Your task to perform on an android device: turn off location Image 0: 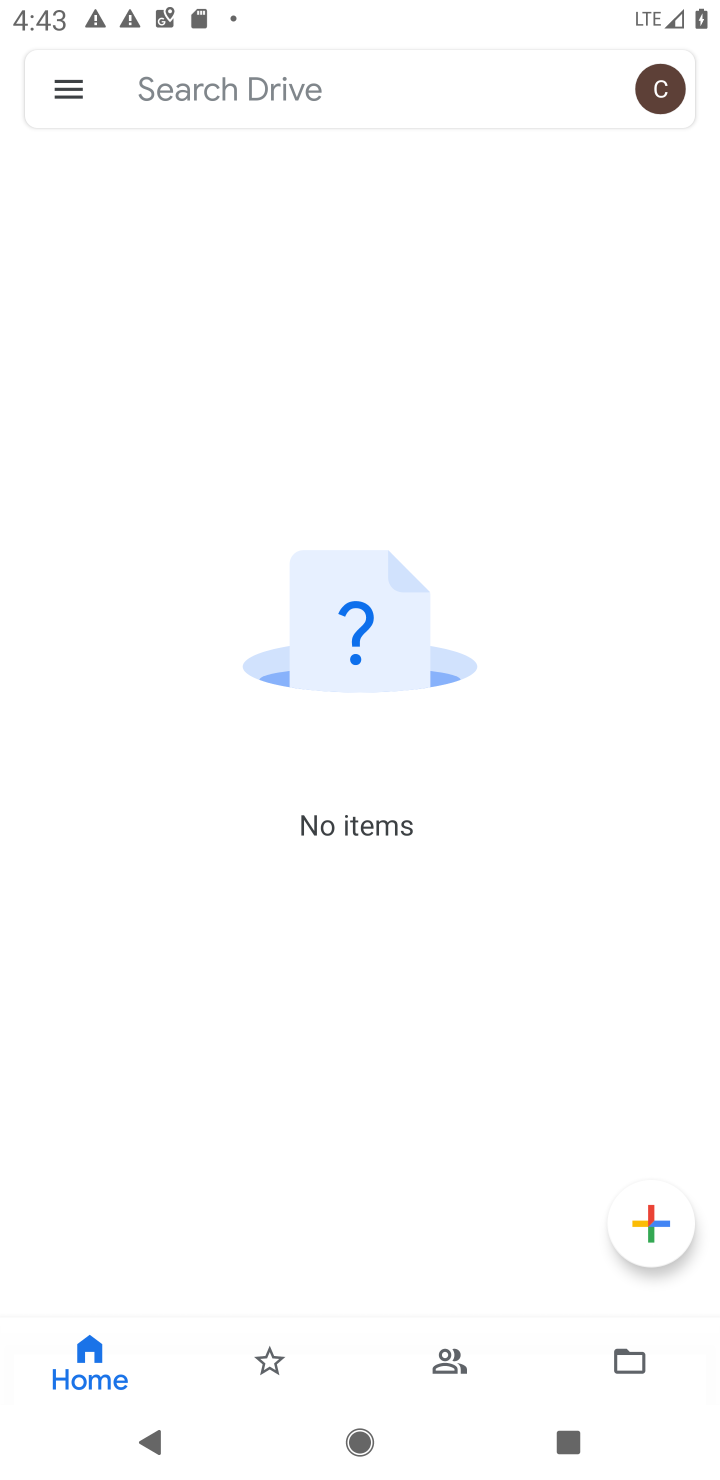
Step 0: press home button
Your task to perform on an android device: turn off location Image 1: 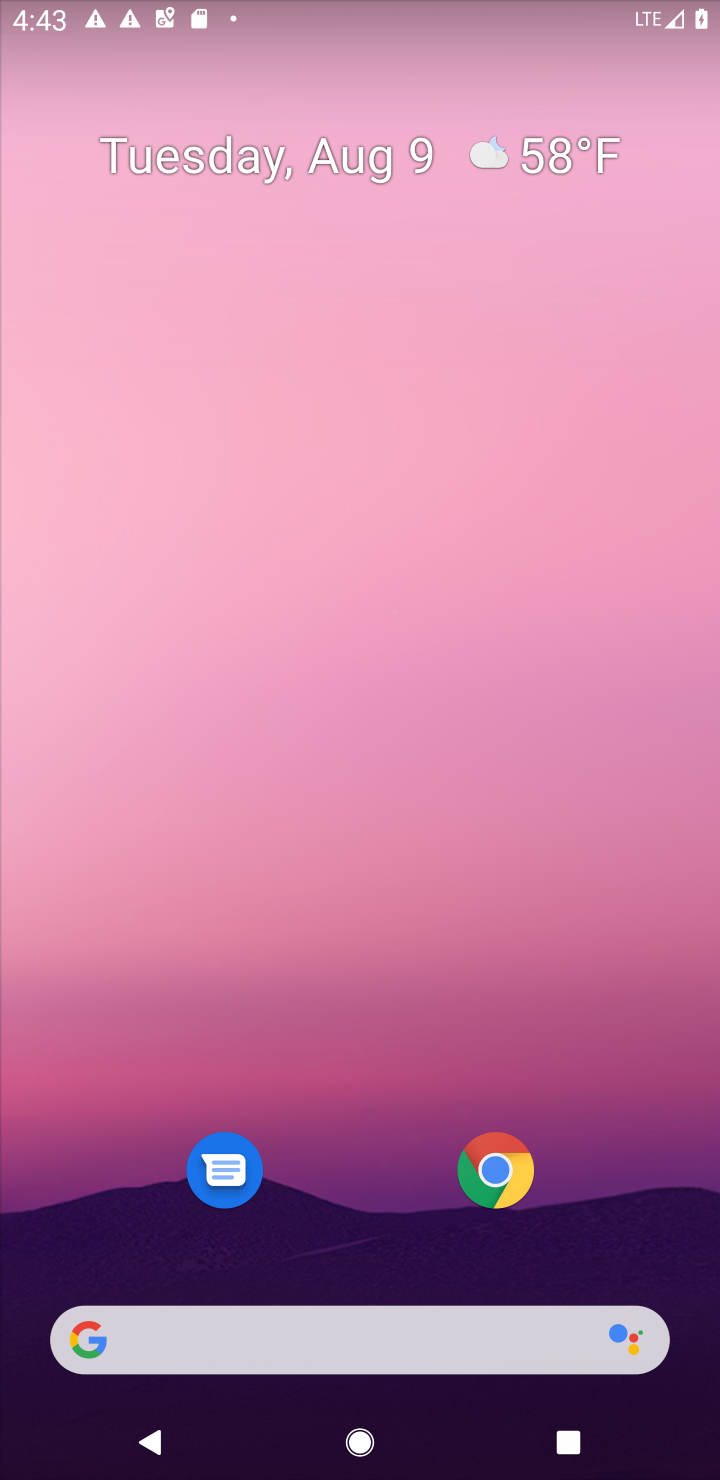
Step 1: drag from (416, 777) to (431, 47)
Your task to perform on an android device: turn off location Image 2: 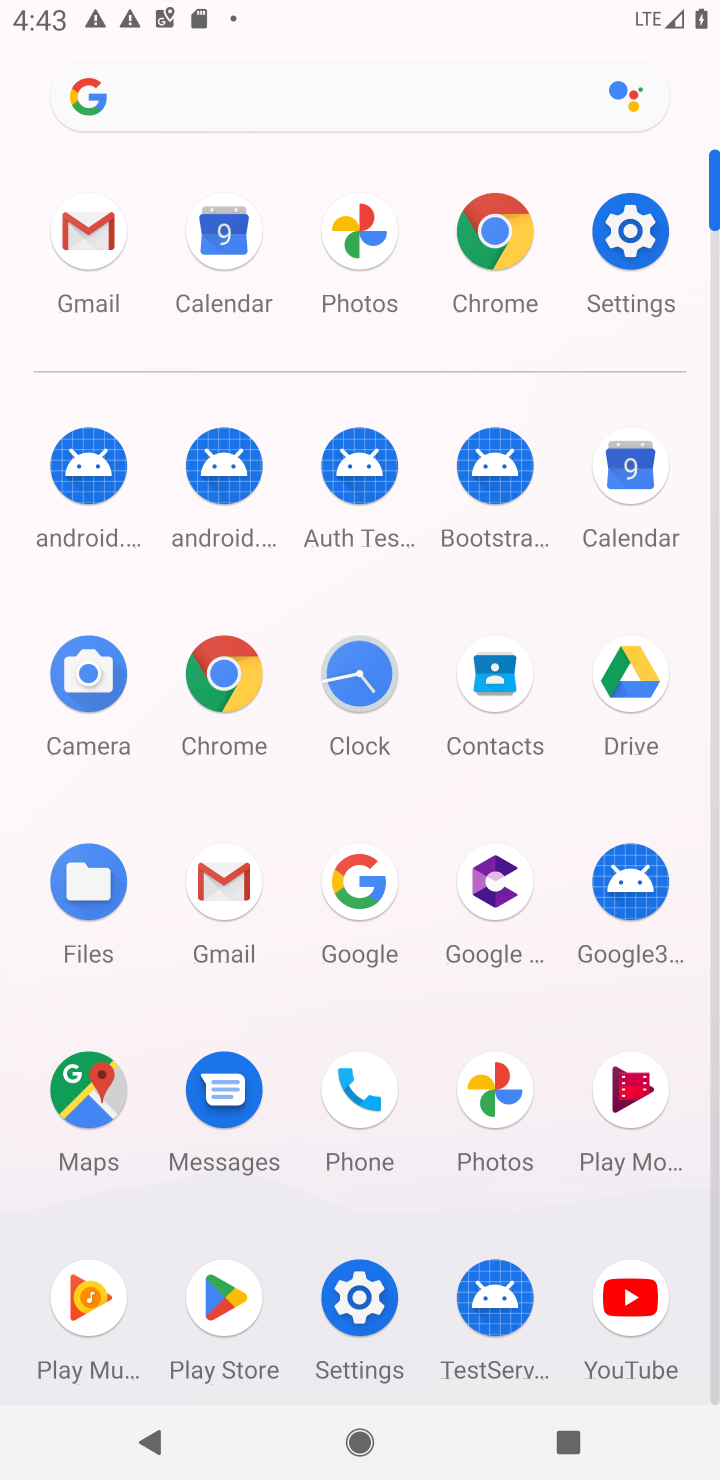
Step 2: click (610, 227)
Your task to perform on an android device: turn off location Image 3: 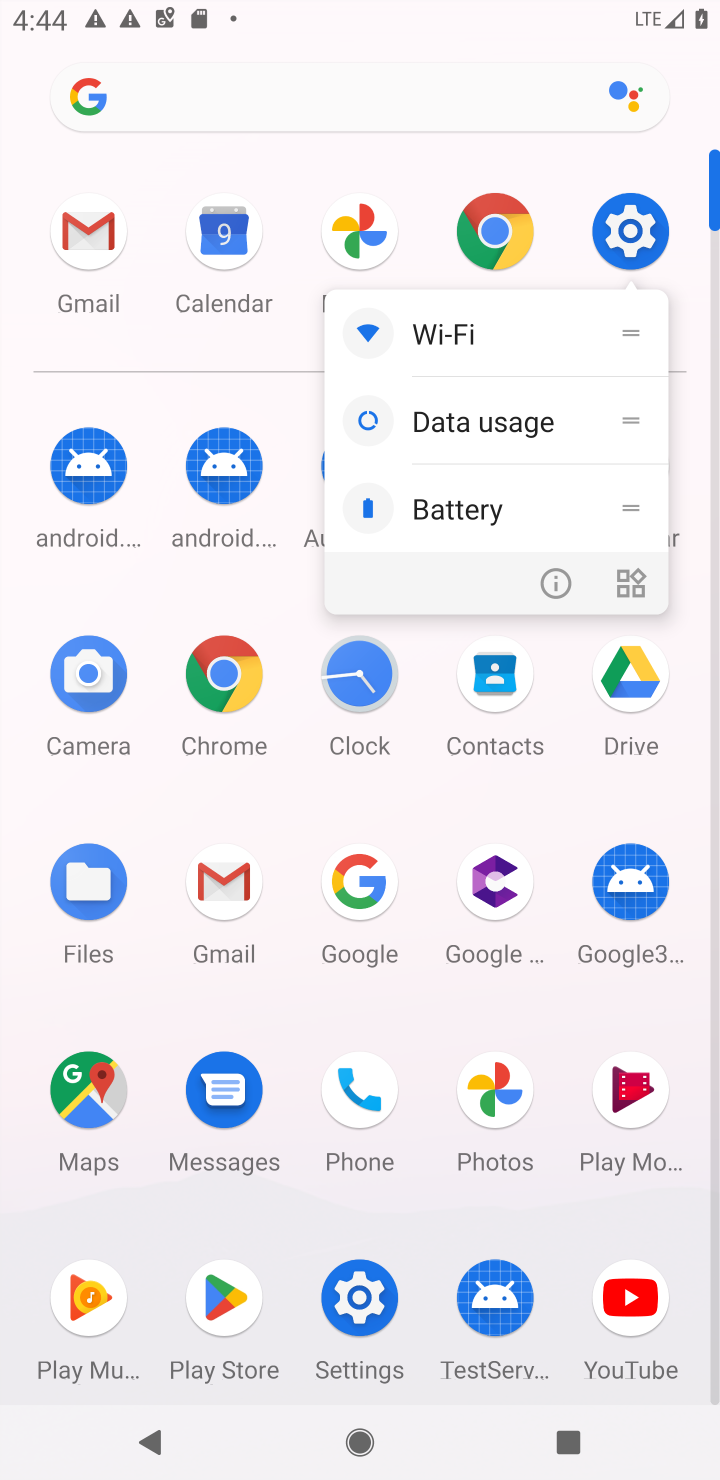
Step 3: click (638, 225)
Your task to perform on an android device: turn off location Image 4: 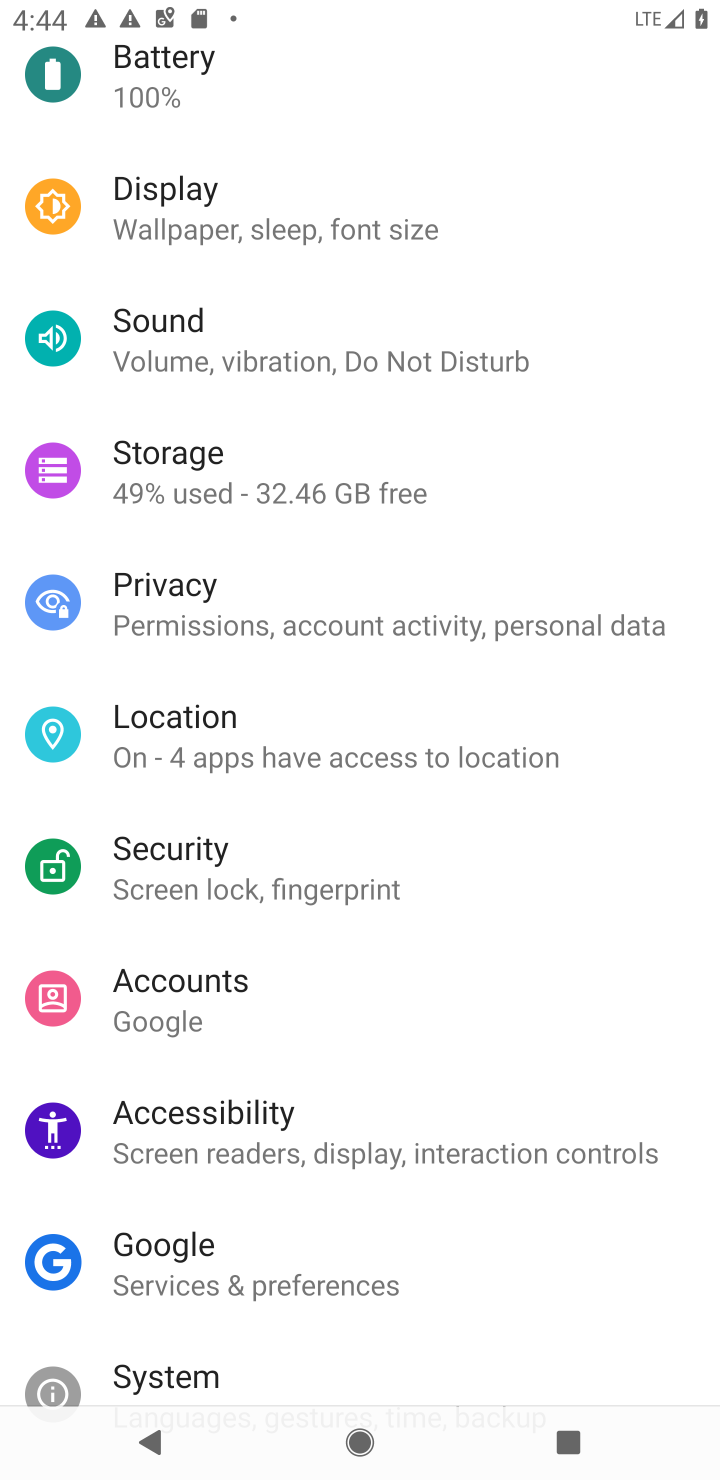
Step 4: click (166, 713)
Your task to perform on an android device: turn off location Image 5: 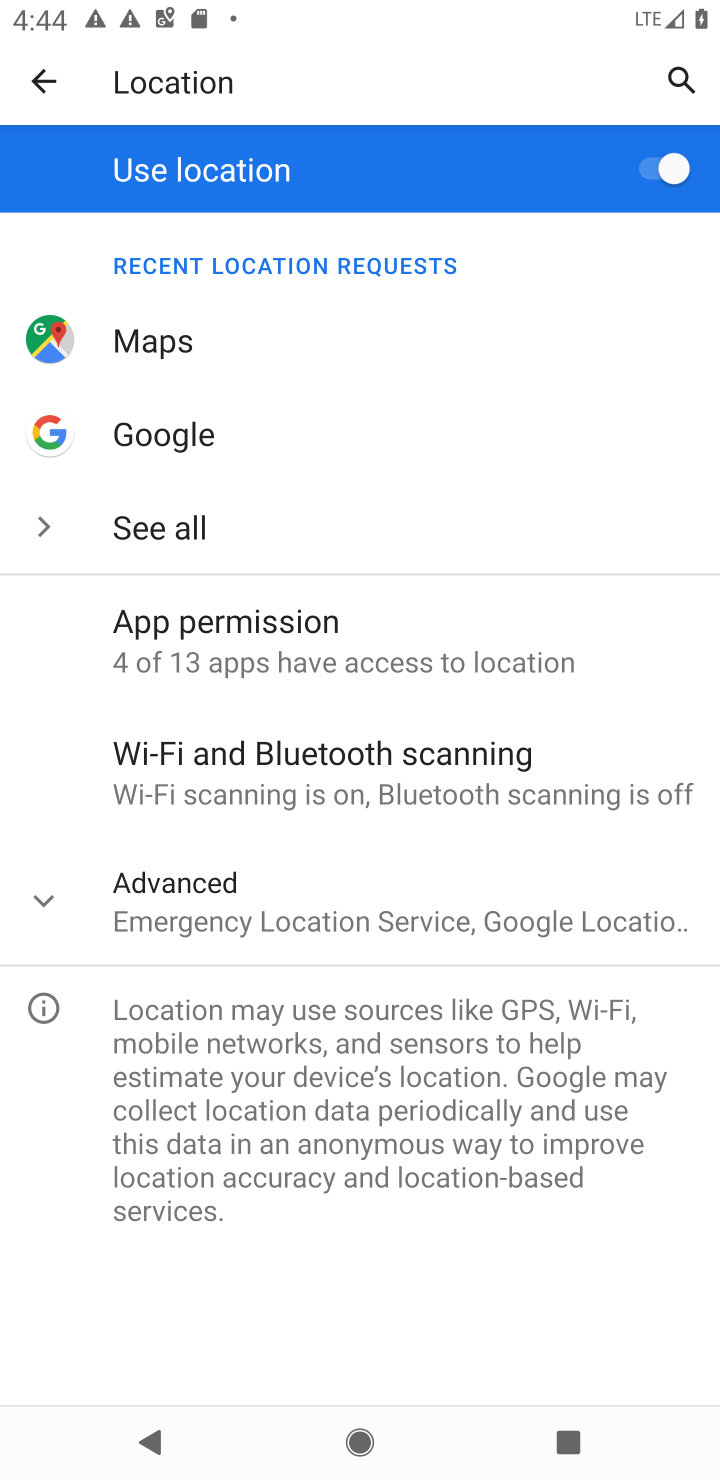
Step 5: click (663, 172)
Your task to perform on an android device: turn off location Image 6: 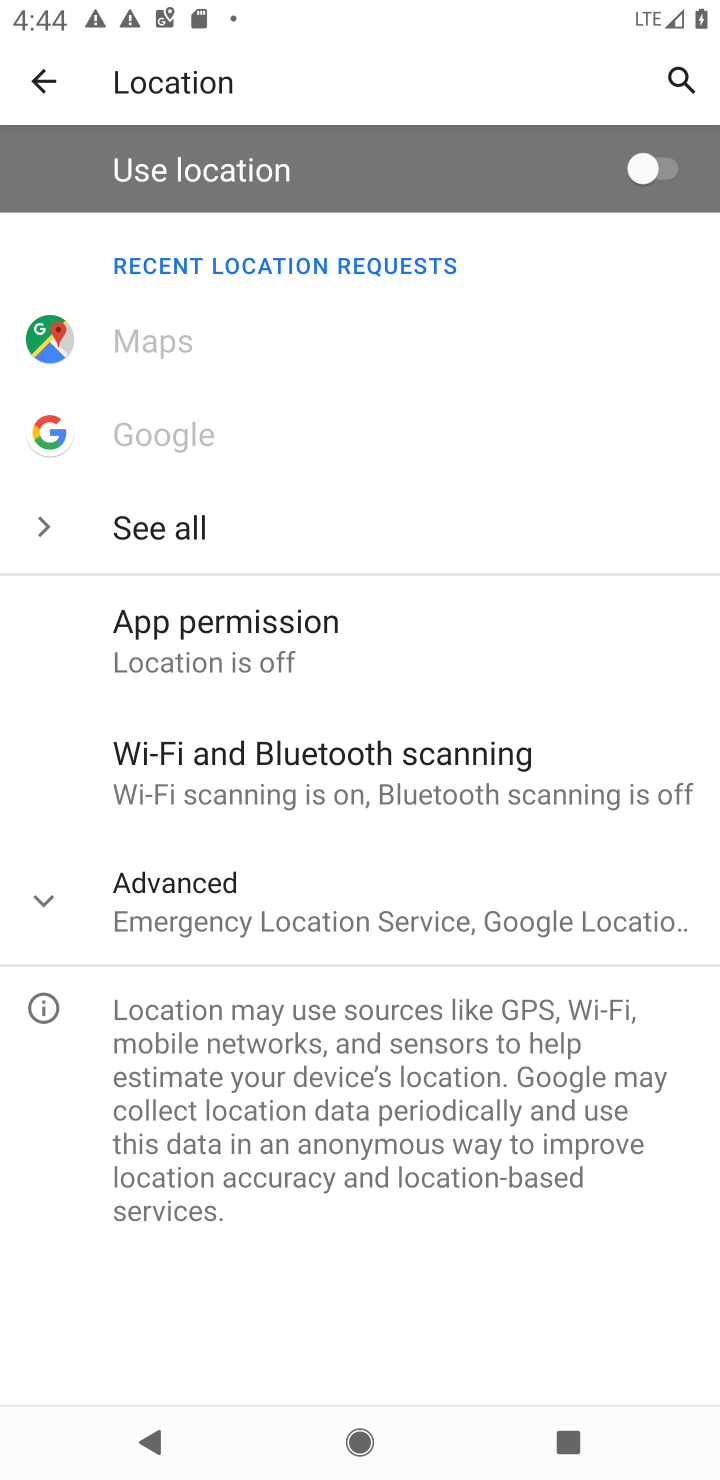
Step 6: task complete